Your task to perform on an android device: check data usage Image 0: 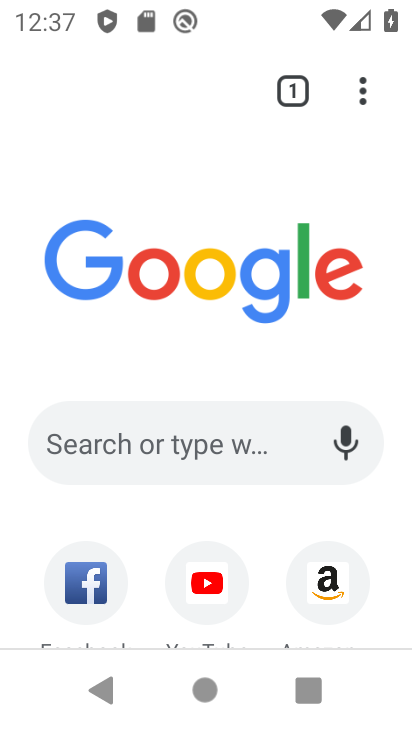
Step 0: press back button
Your task to perform on an android device: check data usage Image 1: 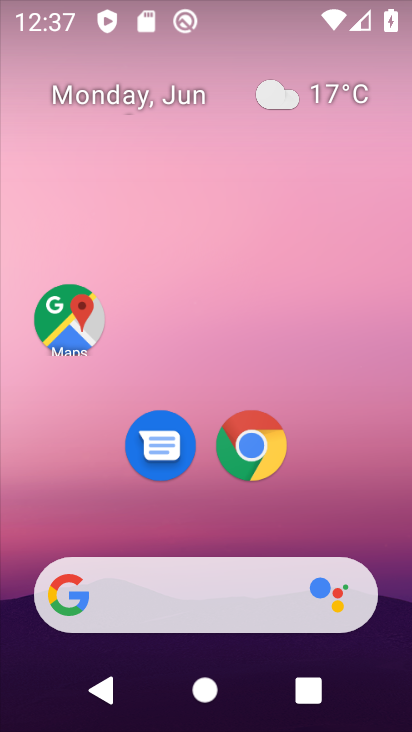
Step 1: drag from (245, 530) to (172, 60)
Your task to perform on an android device: check data usage Image 2: 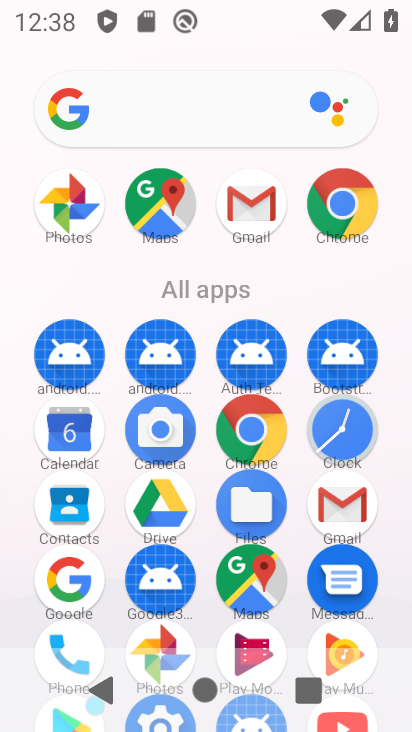
Step 2: drag from (233, 596) to (196, 174)
Your task to perform on an android device: check data usage Image 3: 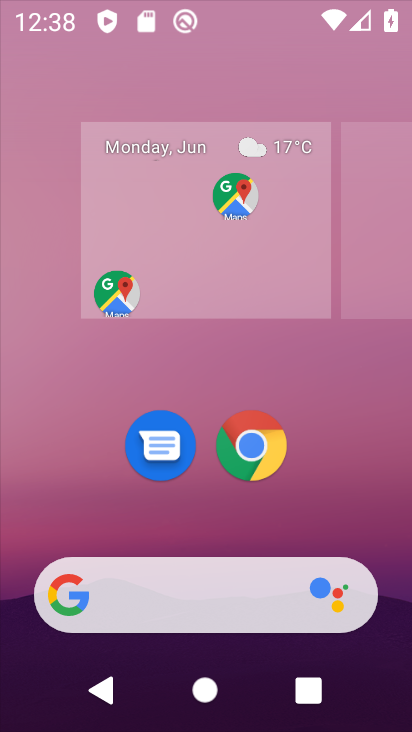
Step 3: drag from (171, 289) to (161, 233)
Your task to perform on an android device: check data usage Image 4: 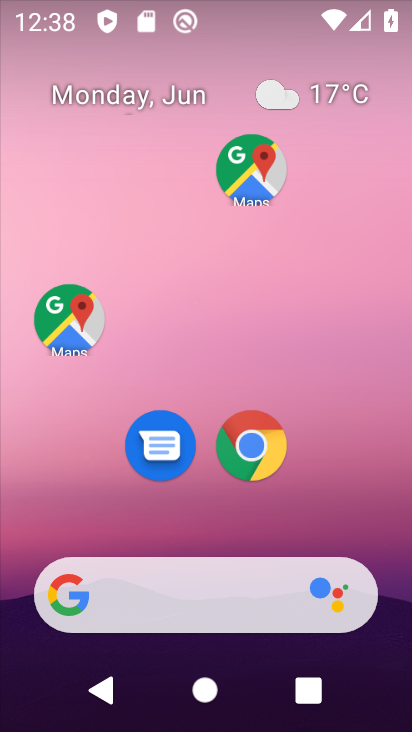
Step 4: click (198, 229)
Your task to perform on an android device: check data usage Image 5: 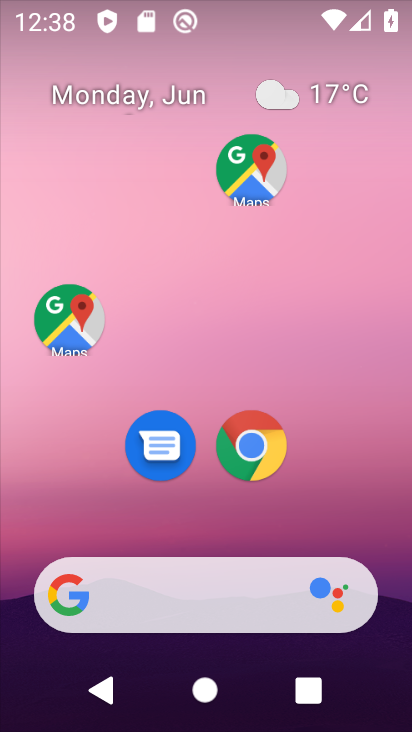
Step 5: drag from (206, 672) to (147, 24)
Your task to perform on an android device: check data usage Image 6: 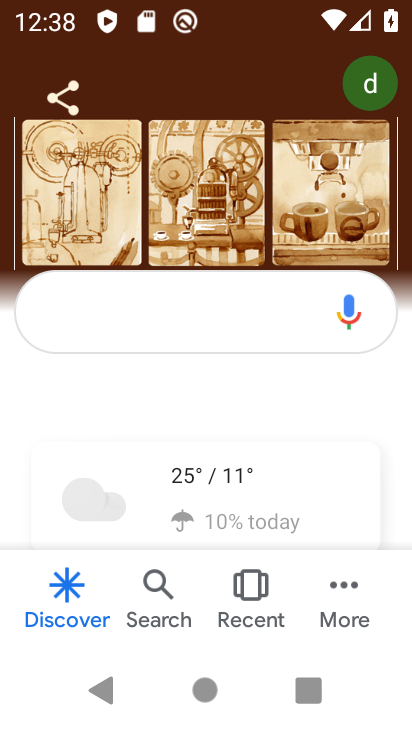
Step 6: press back button
Your task to perform on an android device: check data usage Image 7: 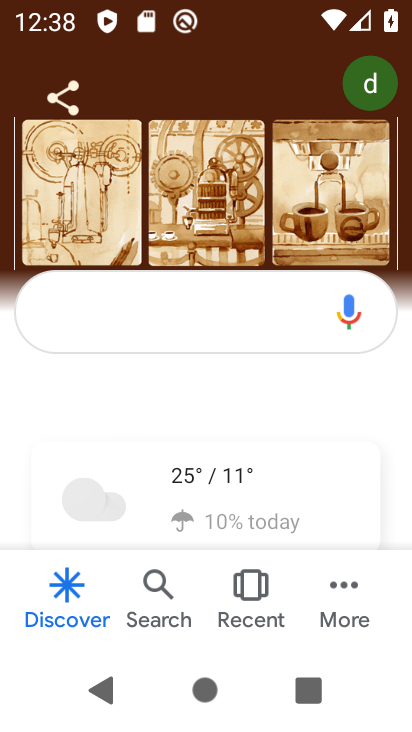
Step 7: press back button
Your task to perform on an android device: check data usage Image 8: 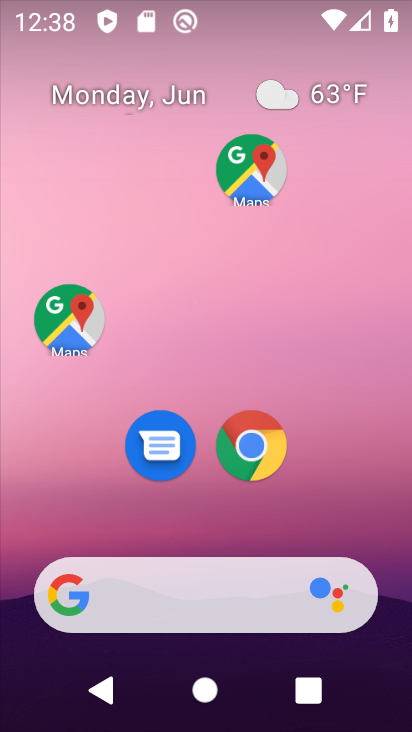
Step 8: press home button
Your task to perform on an android device: check data usage Image 9: 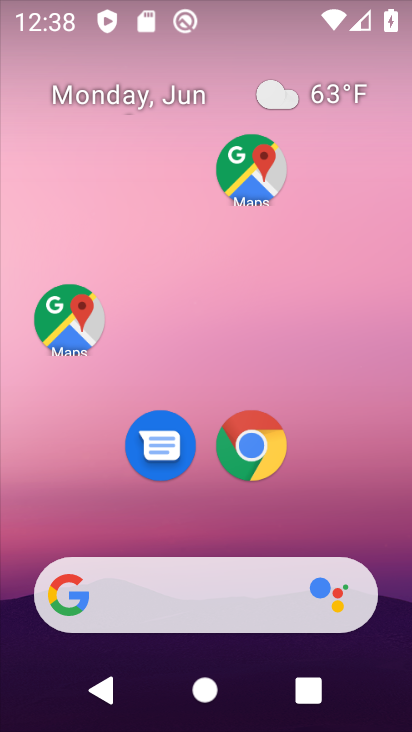
Step 9: drag from (256, 655) to (156, 169)
Your task to perform on an android device: check data usage Image 10: 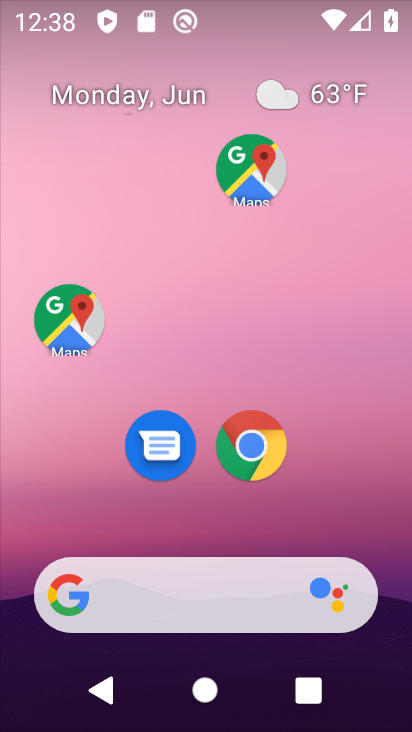
Step 10: drag from (240, 591) to (178, 161)
Your task to perform on an android device: check data usage Image 11: 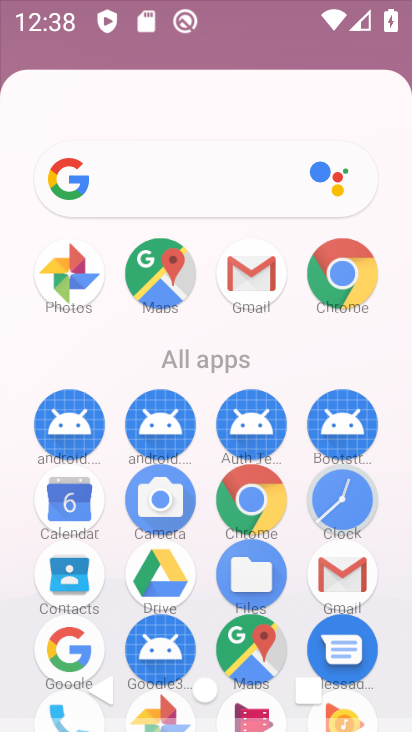
Step 11: drag from (235, 644) to (138, 78)
Your task to perform on an android device: check data usage Image 12: 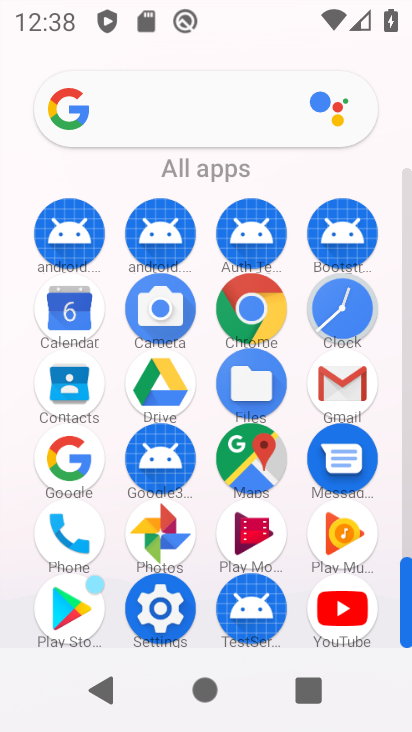
Step 12: click (152, 608)
Your task to perform on an android device: check data usage Image 13: 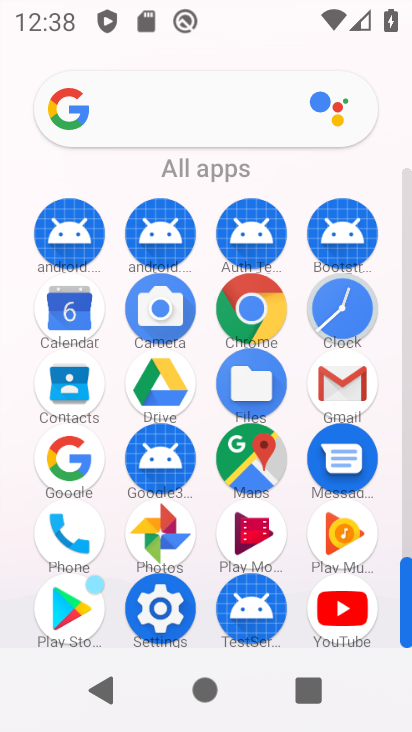
Step 13: click (152, 608)
Your task to perform on an android device: check data usage Image 14: 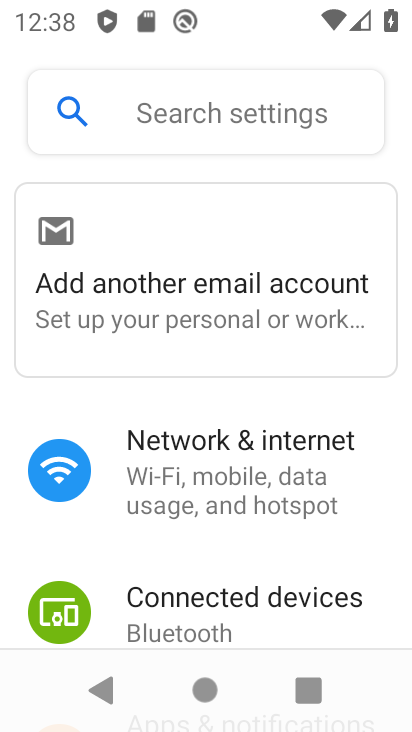
Step 14: click (242, 482)
Your task to perform on an android device: check data usage Image 15: 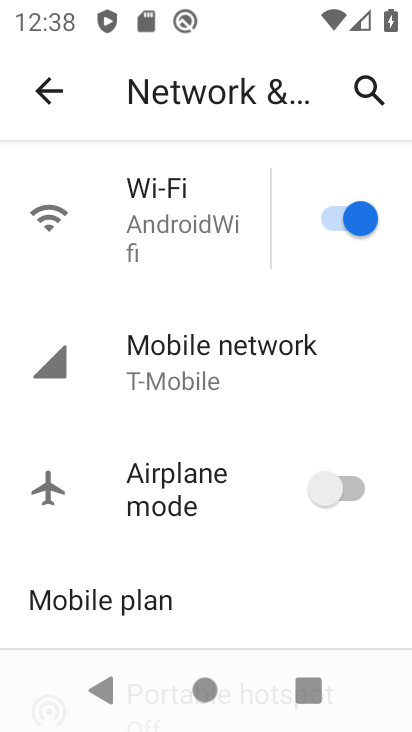
Step 15: click (213, 358)
Your task to perform on an android device: check data usage Image 16: 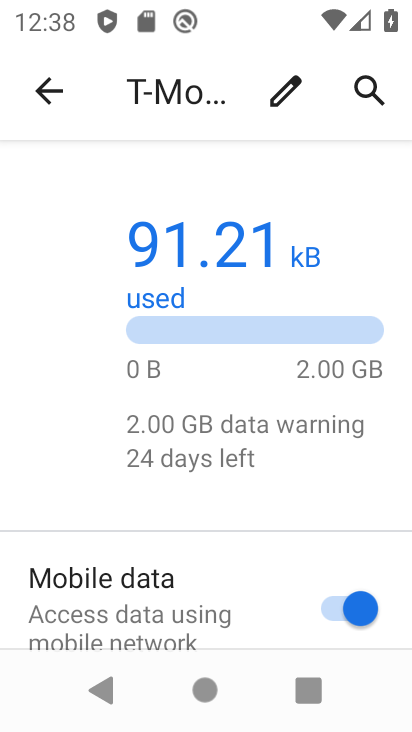
Step 16: task complete